Your task to perform on an android device: turn smart compose on in the gmail app Image 0: 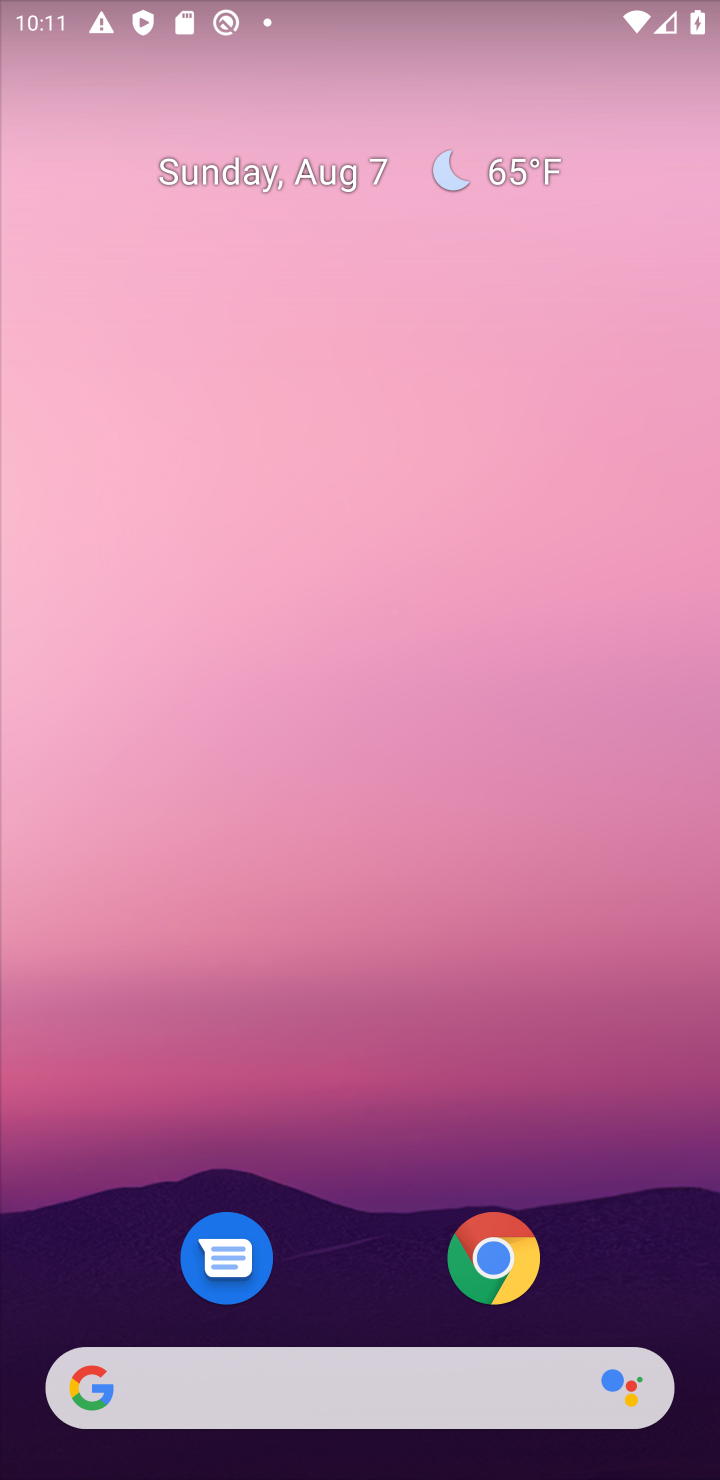
Step 0: press home button
Your task to perform on an android device: turn smart compose on in the gmail app Image 1: 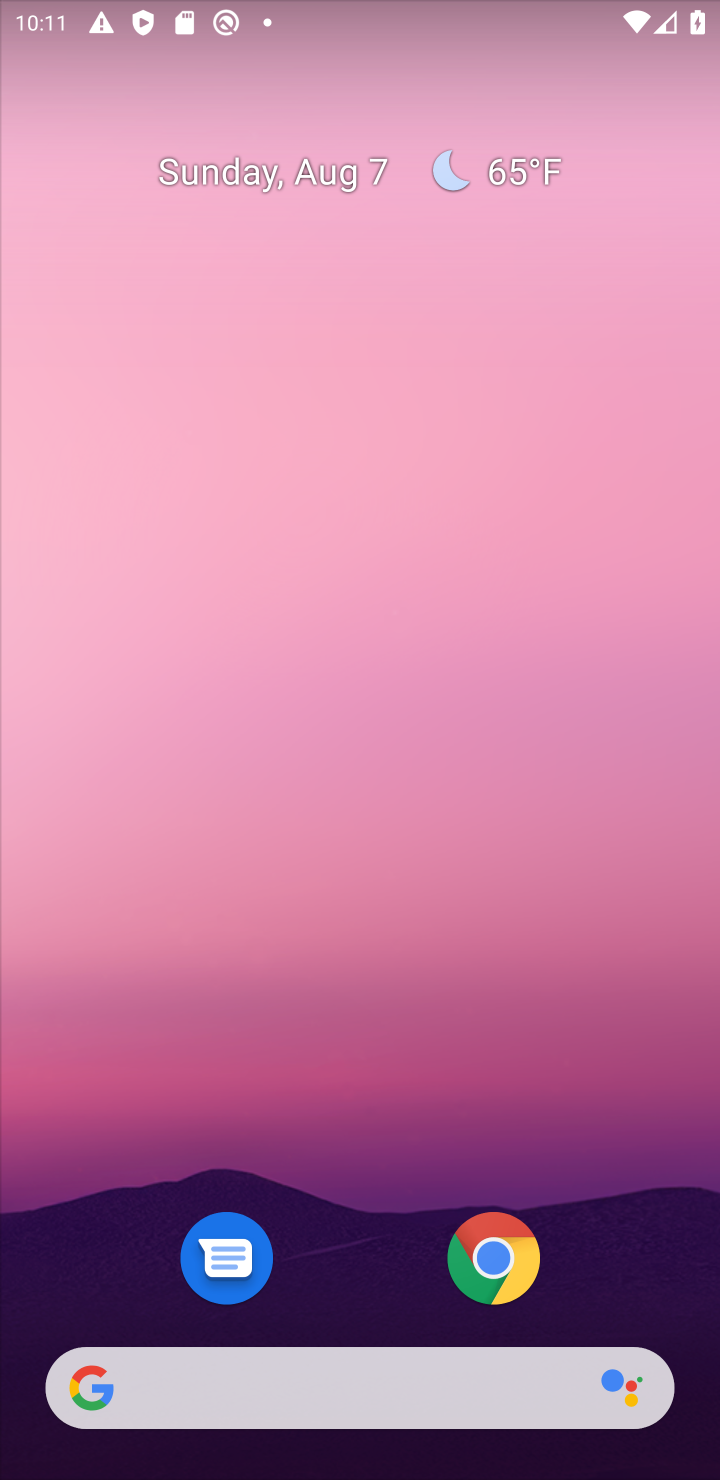
Step 1: drag from (384, 1308) to (15, 257)
Your task to perform on an android device: turn smart compose on in the gmail app Image 2: 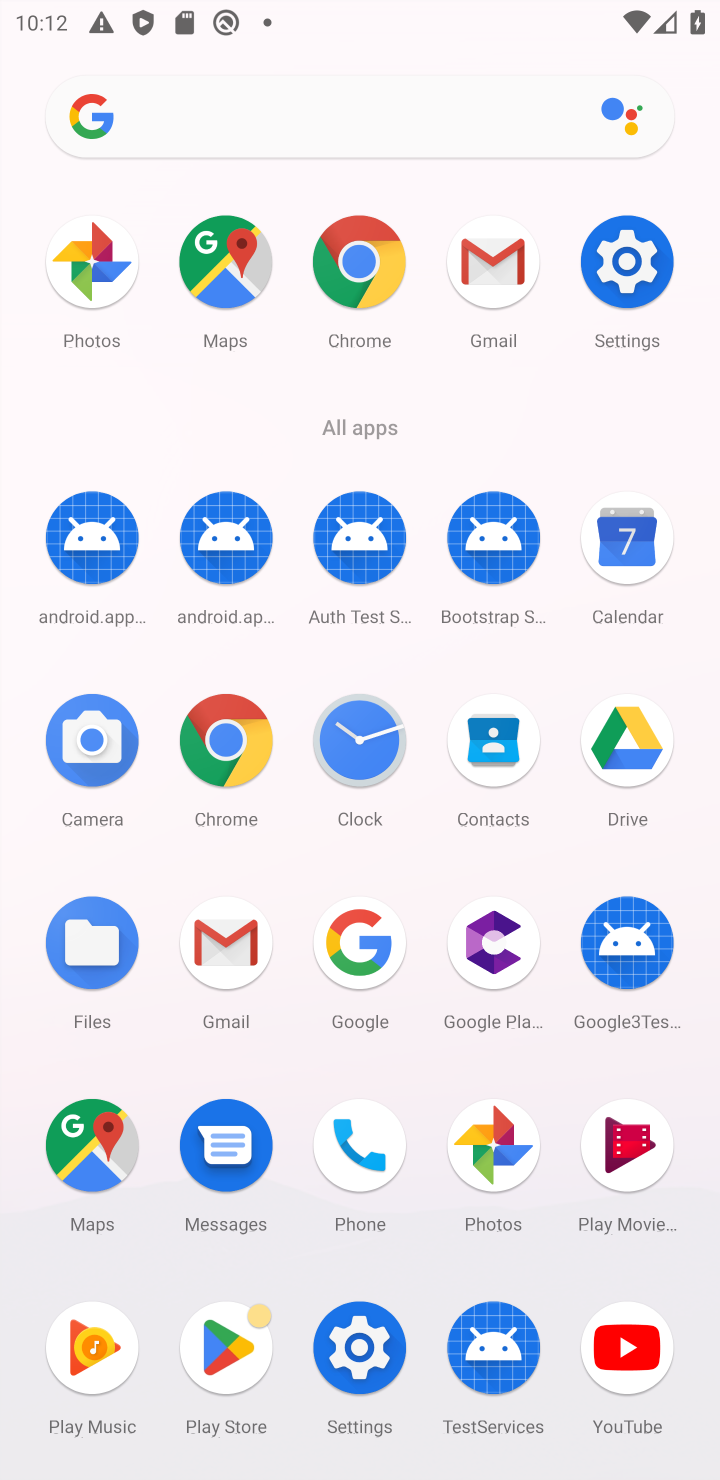
Step 2: click (225, 948)
Your task to perform on an android device: turn smart compose on in the gmail app Image 3: 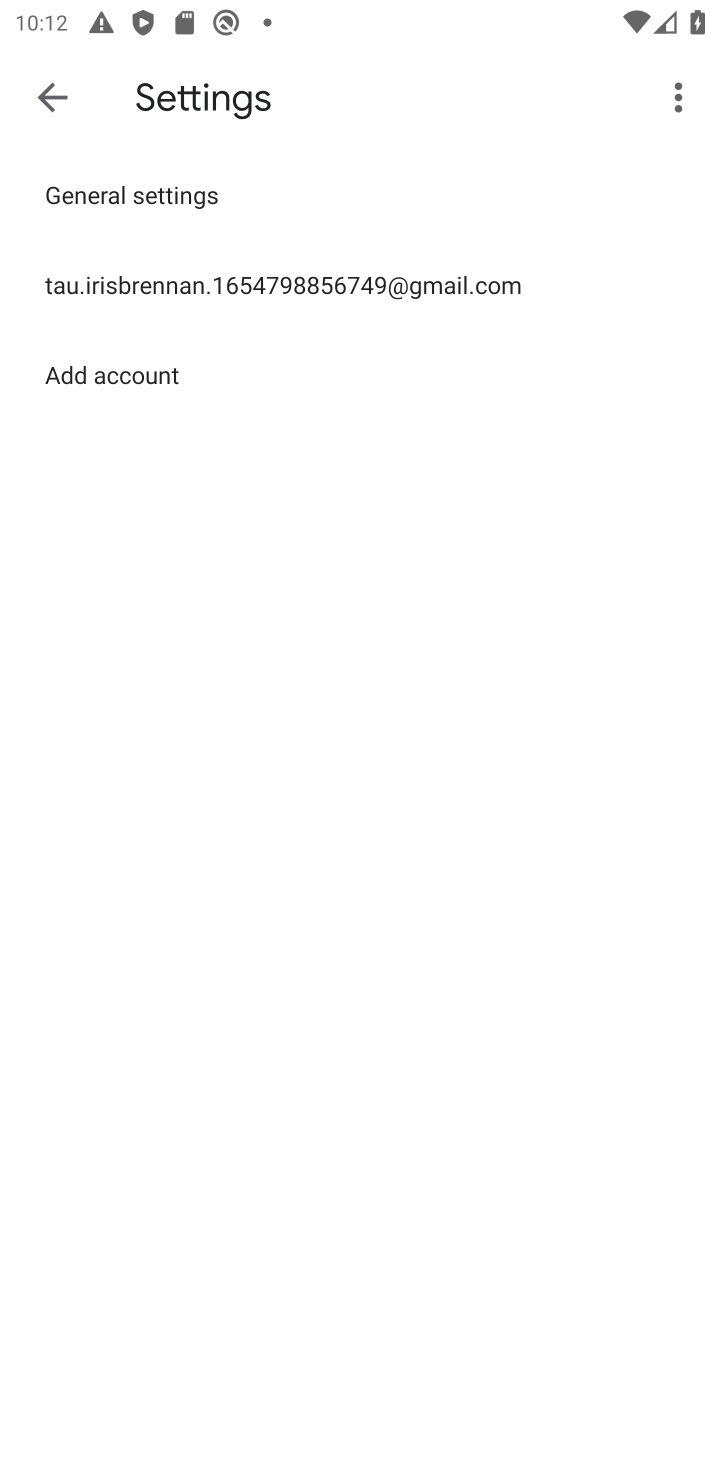
Step 3: click (339, 293)
Your task to perform on an android device: turn smart compose on in the gmail app Image 4: 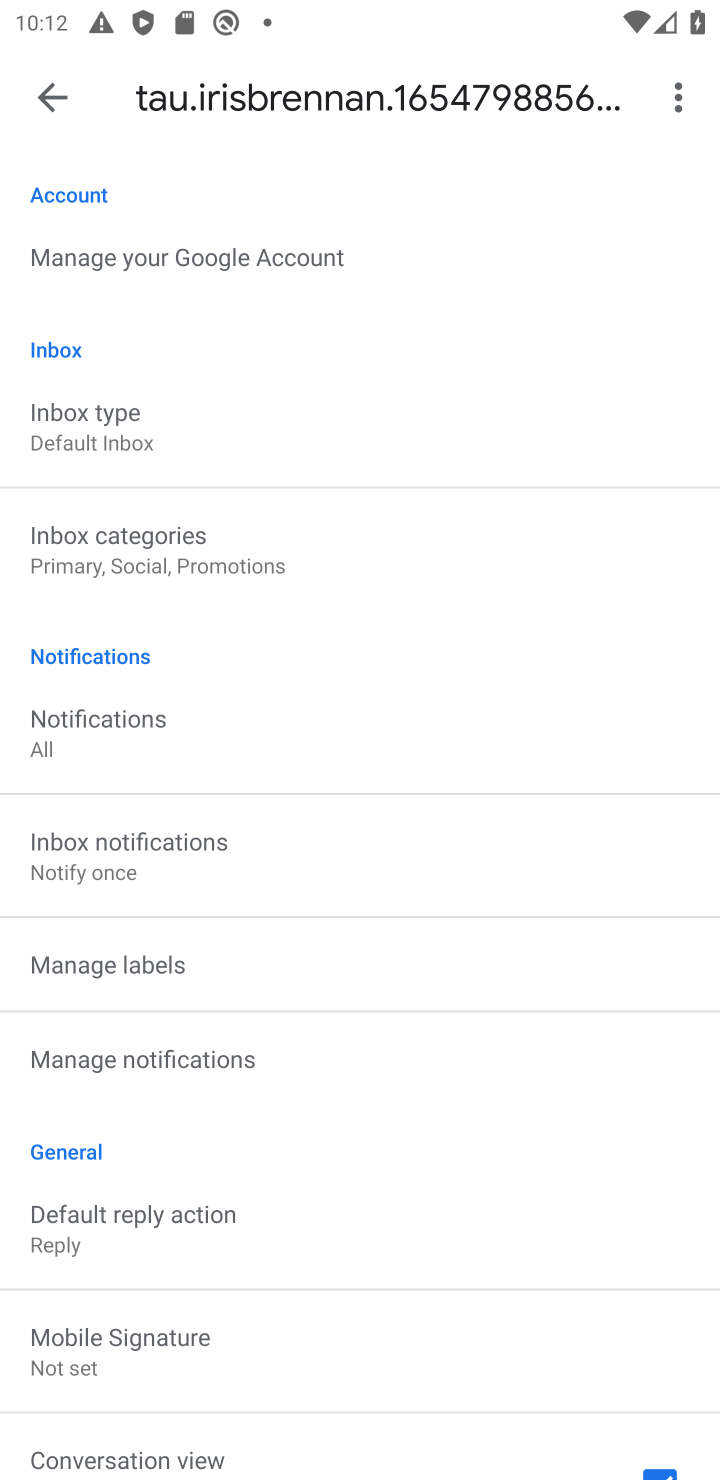
Step 4: task complete